Your task to perform on an android device: Open calendar and show me the fourth week of next month Image 0: 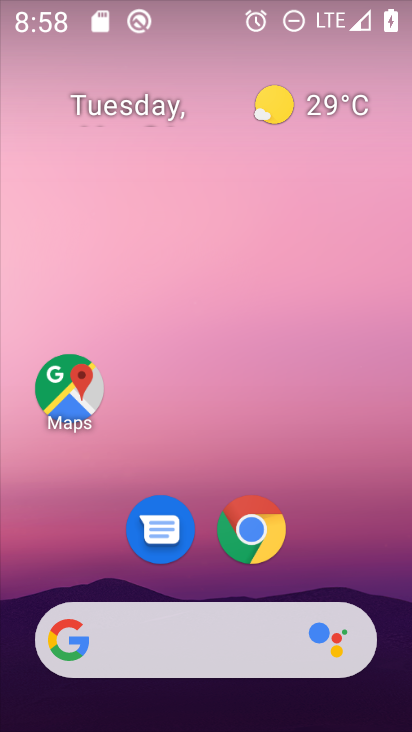
Step 0: drag from (393, 628) to (258, 88)
Your task to perform on an android device: Open calendar and show me the fourth week of next month Image 1: 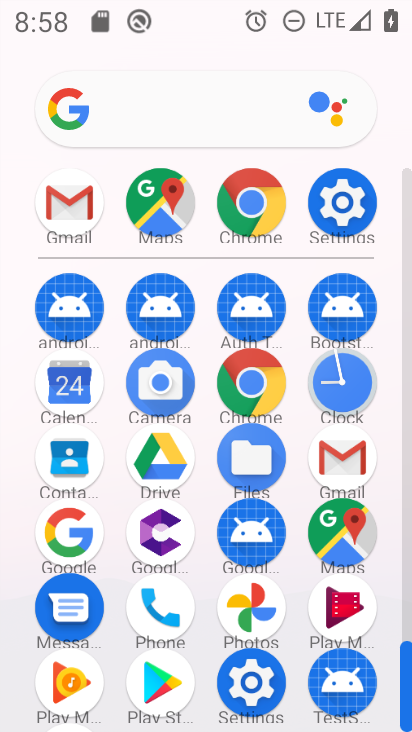
Step 1: click (74, 401)
Your task to perform on an android device: Open calendar and show me the fourth week of next month Image 2: 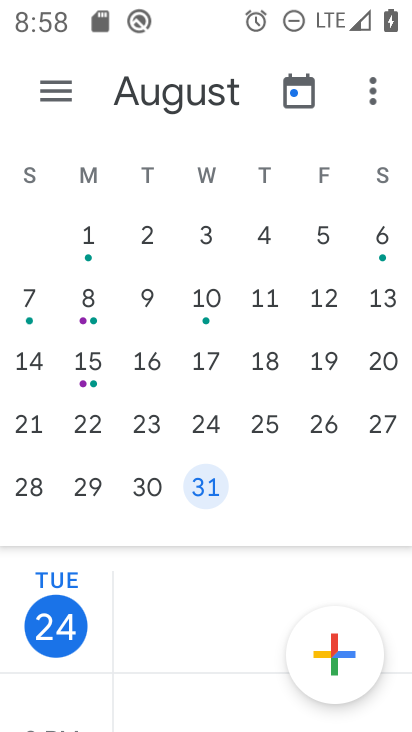
Step 2: drag from (335, 326) to (81, 362)
Your task to perform on an android device: Open calendar and show me the fourth week of next month Image 3: 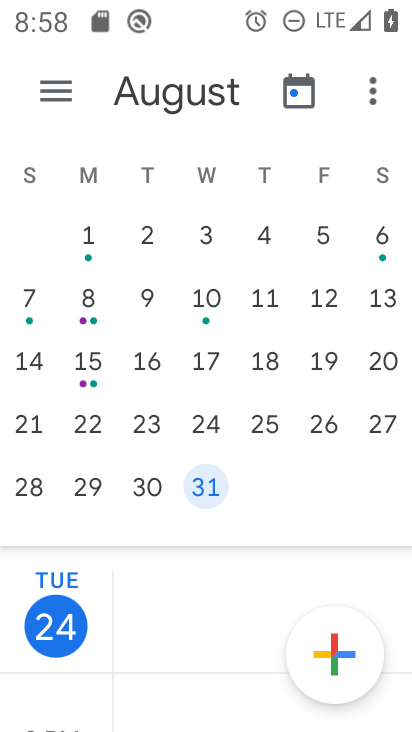
Step 3: drag from (338, 338) to (37, 335)
Your task to perform on an android device: Open calendar and show me the fourth week of next month Image 4: 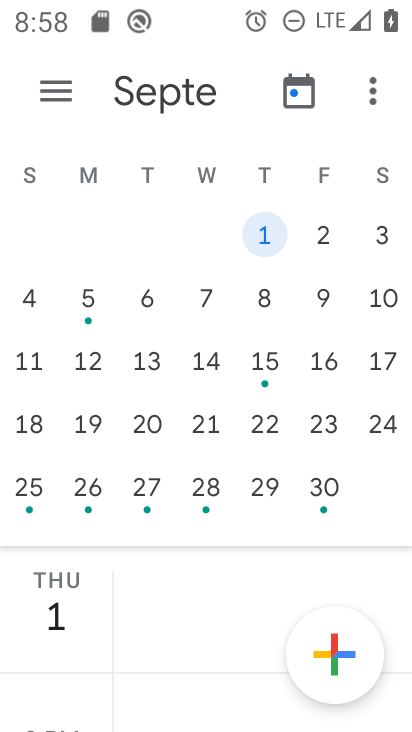
Step 4: click (82, 487)
Your task to perform on an android device: Open calendar and show me the fourth week of next month Image 5: 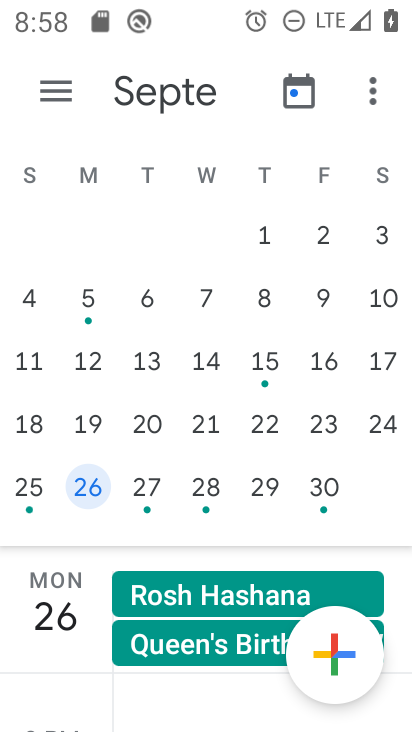
Step 5: task complete